Your task to perform on an android device: toggle notifications settings in the gmail app Image 0: 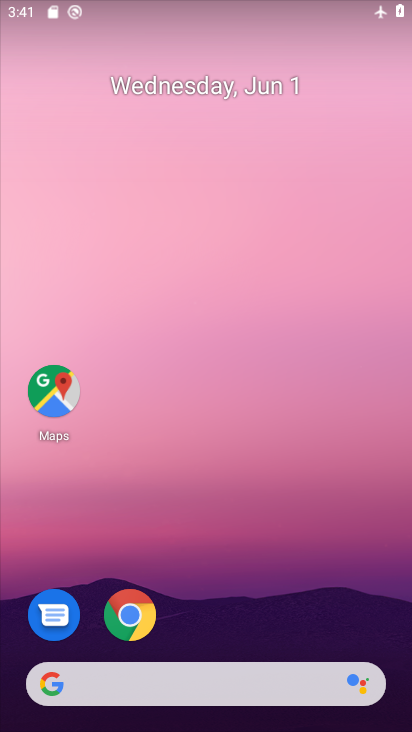
Step 0: drag from (262, 565) to (289, 109)
Your task to perform on an android device: toggle notifications settings in the gmail app Image 1: 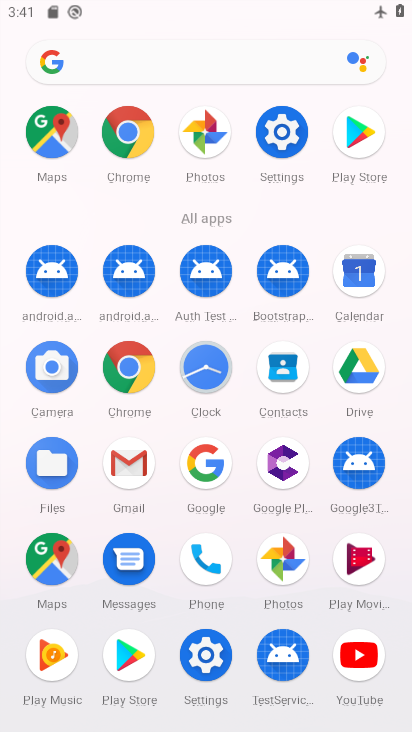
Step 1: click (137, 453)
Your task to perform on an android device: toggle notifications settings in the gmail app Image 2: 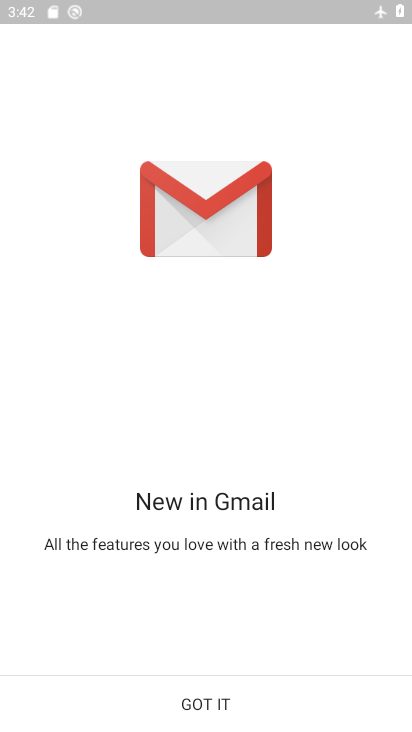
Step 2: click (220, 696)
Your task to perform on an android device: toggle notifications settings in the gmail app Image 3: 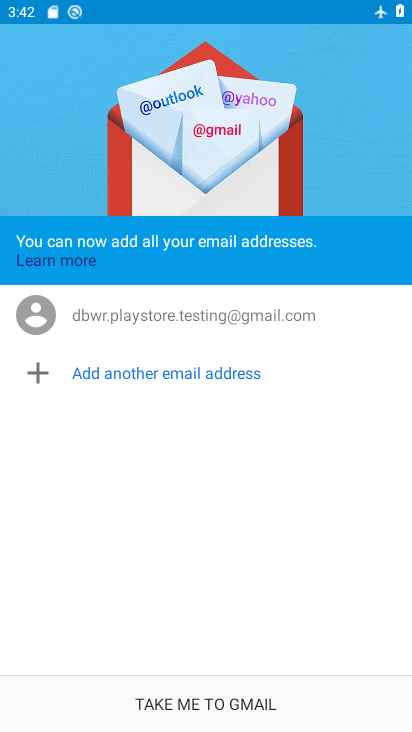
Step 3: click (212, 314)
Your task to perform on an android device: toggle notifications settings in the gmail app Image 4: 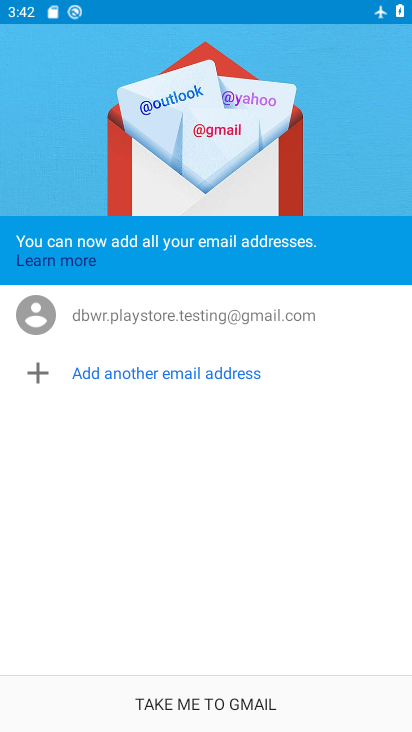
Step 4: click (222, 717)
Your task to perform on an android device: toggle notifications settings in the gmail app Image 5: 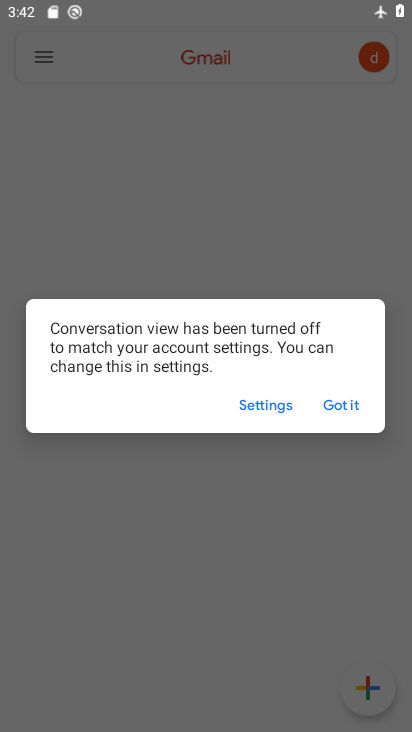
Step 5: click (337, 399)
Your task to perform on an android device: toggle notifications settings in the gmail app Image 6: 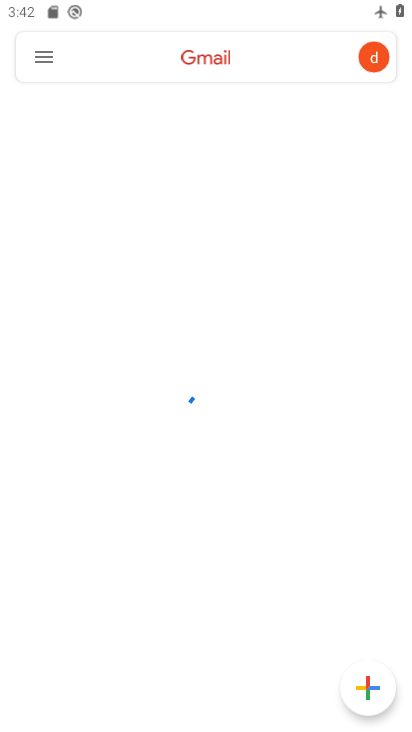
Step 6: click (46, 60)
Your task to perform on an android device: toggle notifications settings in the gmail app Image 7: 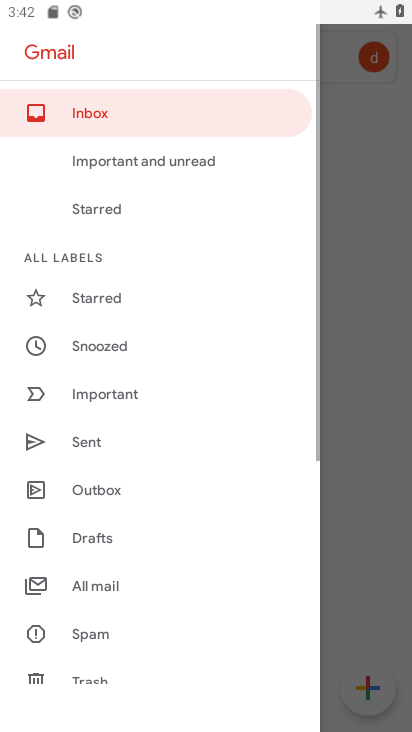
Step 7: drag from (112, 560) to (171, 141)
Your task to perform on an android device: toggle notifications settings in the gmail app Image 8: 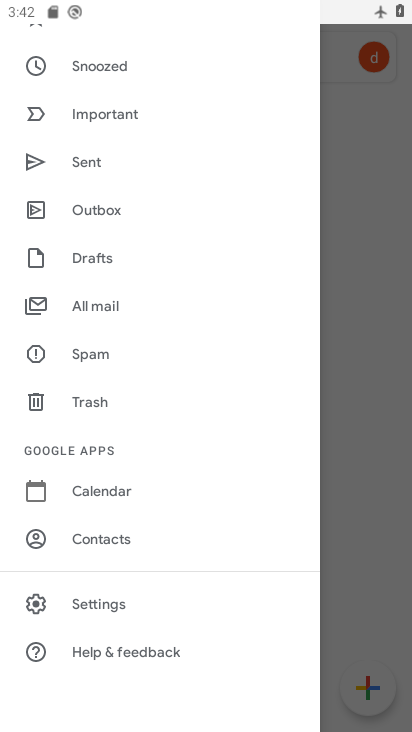
Step 8: click (109, 601)
Your task to perform on an android device: toggle notifications settings in the gmail app Image 9: 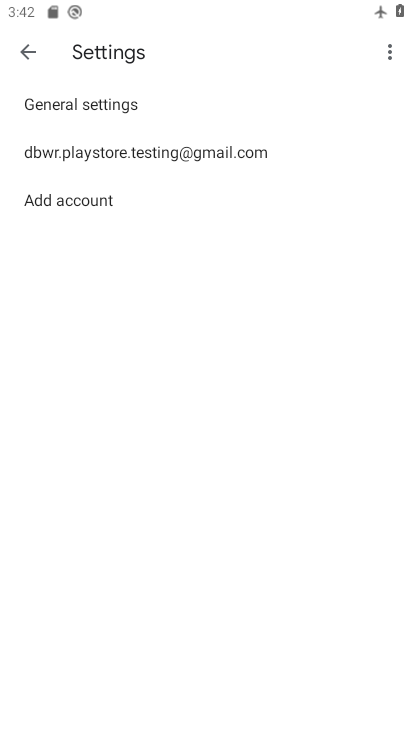
Step 9: click (86, 148)
Your task to perform on an android device: toggle notifications settings in the gmail app Image 10: 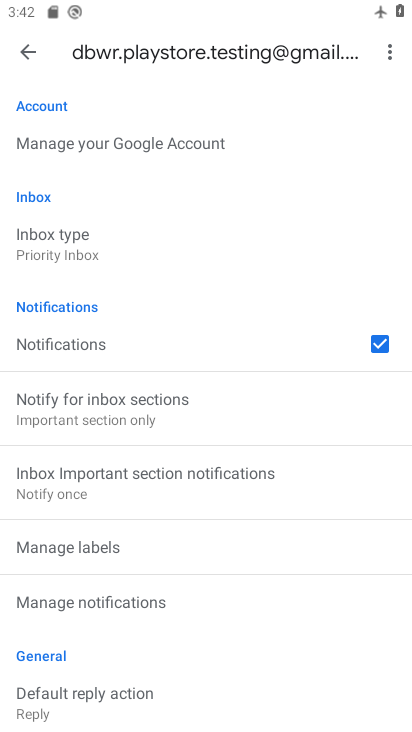
Step 10: click (145, 605)
Your task to perform on an android device: toggle notifications settings in the gmail app Image 11: 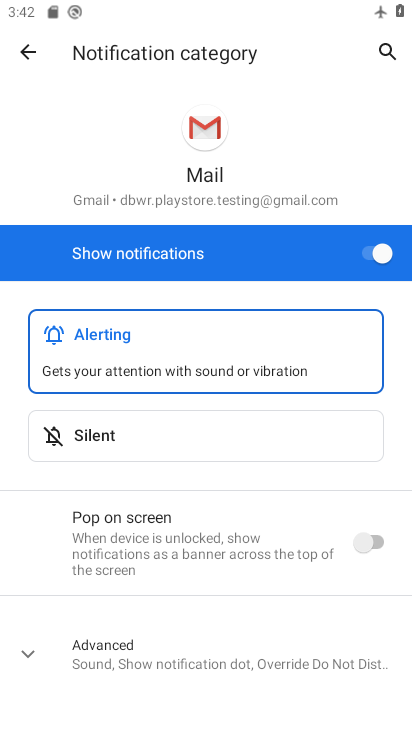
Step 11: click (380, 250)
Your task to perform on an android device: toggle notifications settings in the gmail app Image 12: 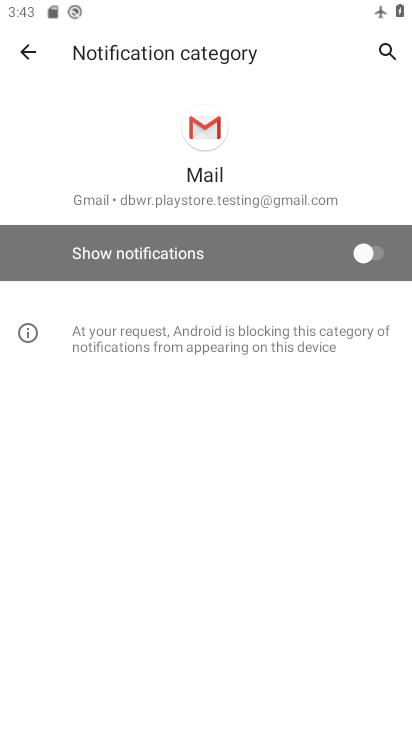
Step 12: task complete